Your task to perform on an android device: What is the news today? Image 0: 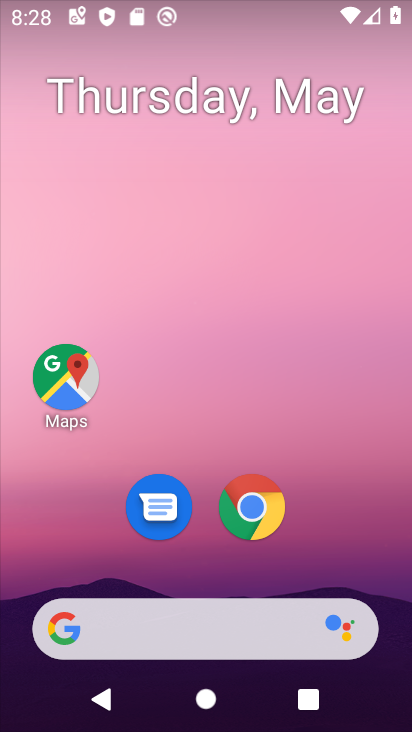
Step 0: drag from (226, 664) to (201, 351)
Your task to perform on an android device: What is the news today? Image 1: 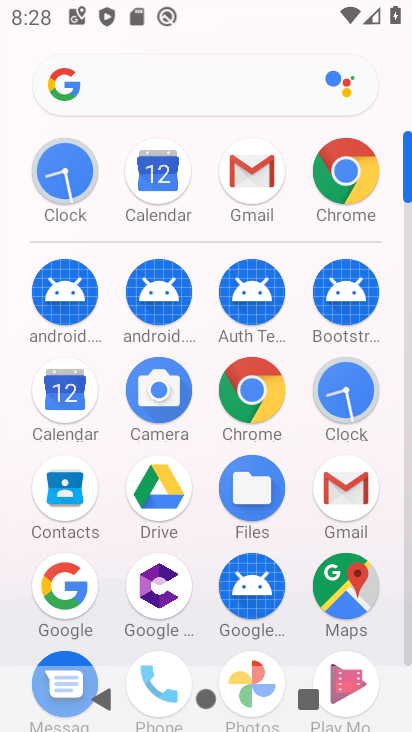
Step 1: click (123, 75)
Your task to perform on an android device: What is the news today? Image 2: 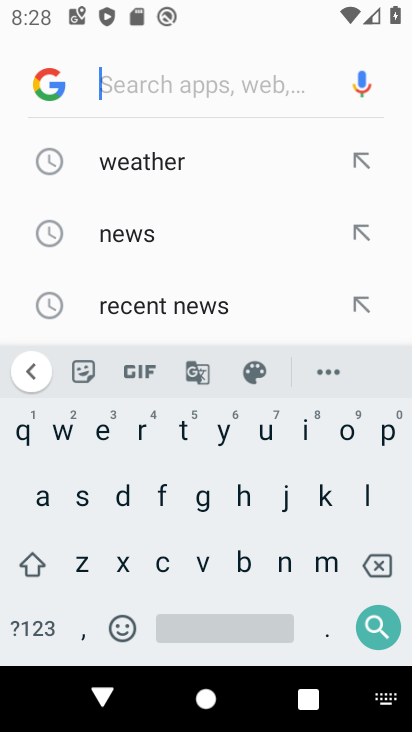
Step 2: click (150, 239)
Your task to perform on an android device: What is the news today? Image 3: 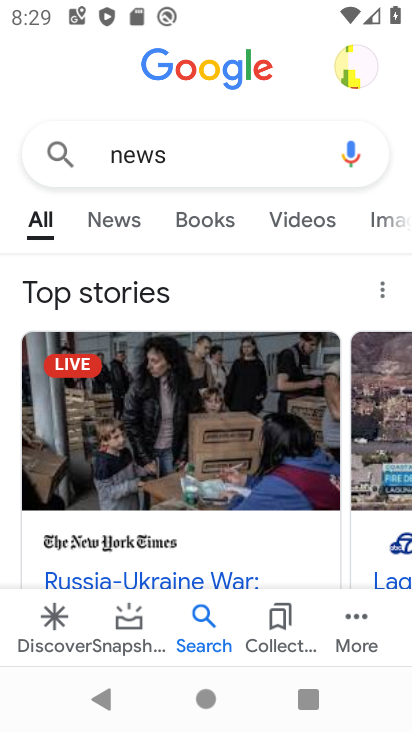
Step 3: task complete